Your task to perform on an android device: What's the weather going to be this weekend? Image 0: 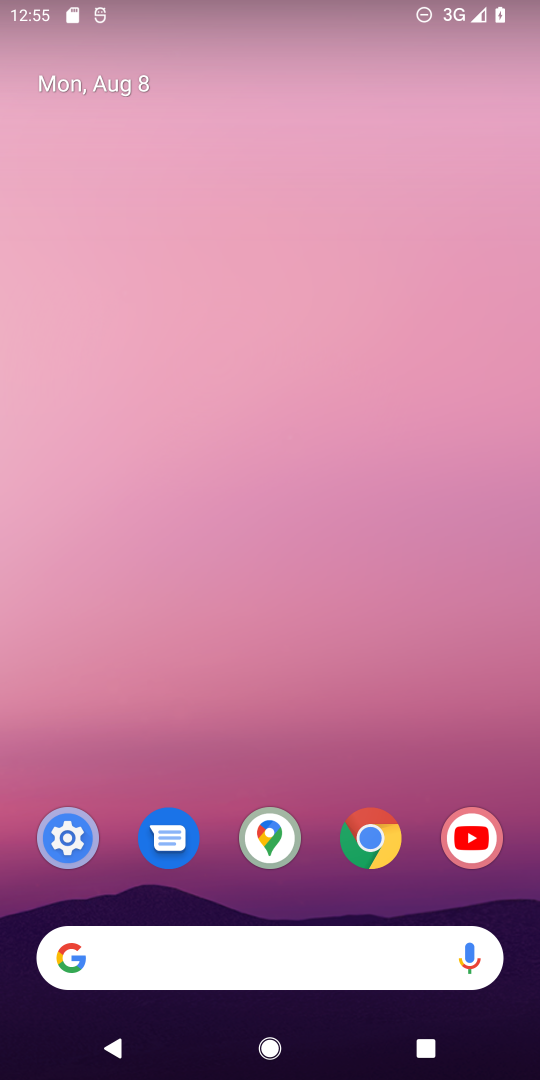
Step 0: press home button
Your task to perform on an android device: What's the weather going to be this weekend? Image 1: 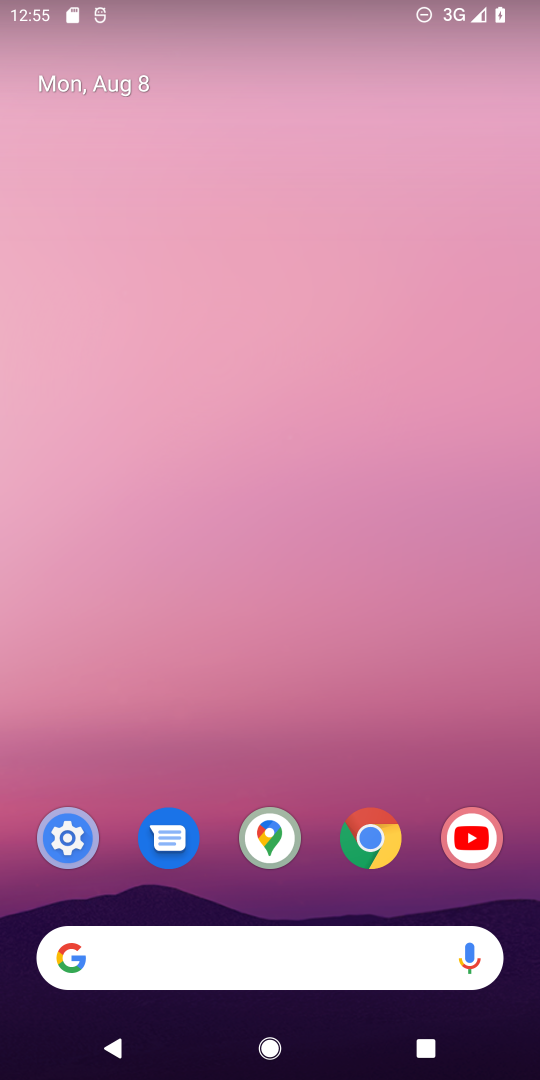
Step 1: click (68, 960)
Your task to perform on an android device: What's the weather going to be this weekend? Image 2: 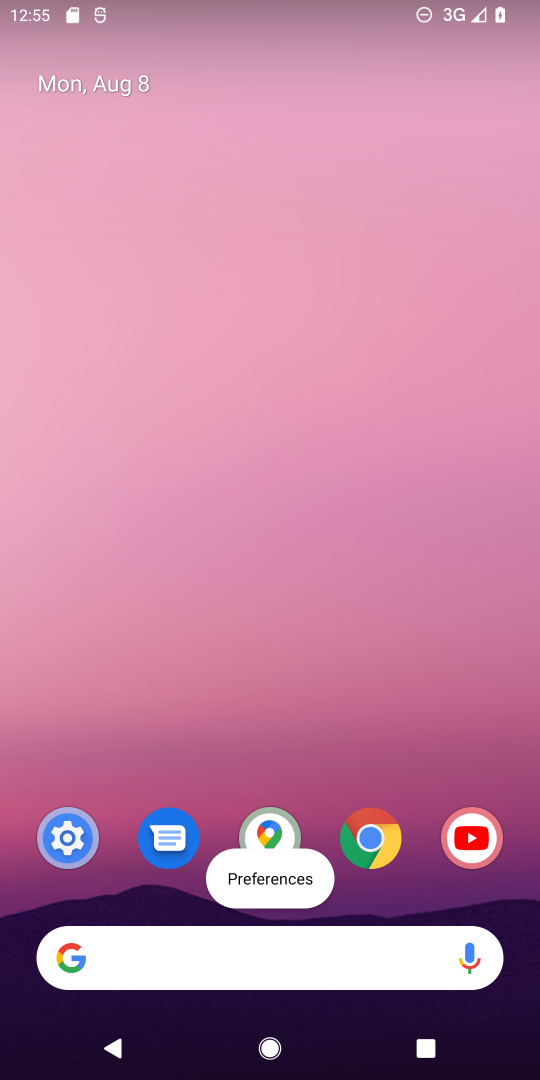
Step 2: click (71, 947)
Your task to perform on an android device: What's the weather going to be this weekend? Image 3: 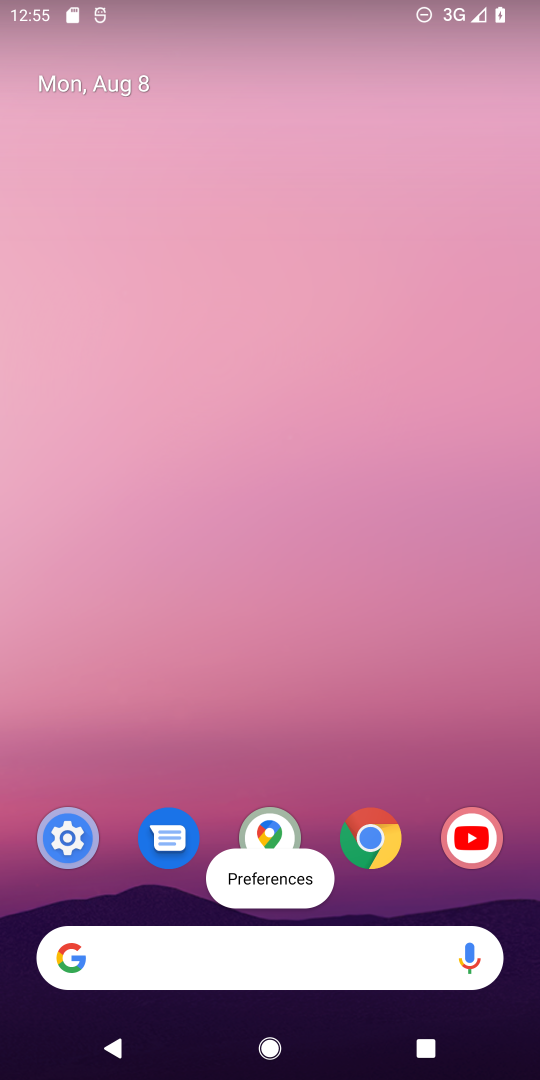
Step 3: click (69, 947)
Your task to perform on an android device: What's the weather going to be this weekend? Image 4: 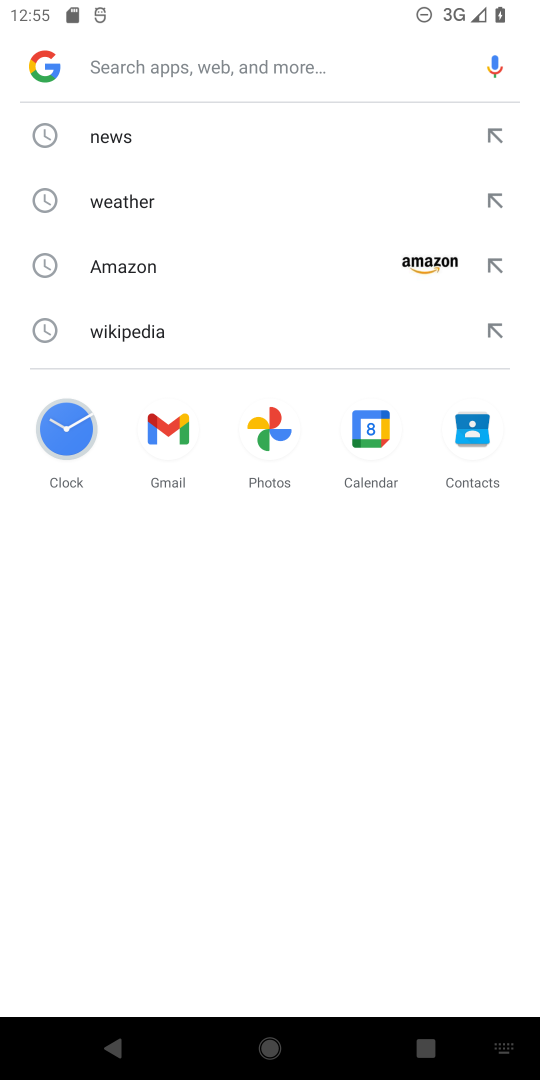
Step 4: type "What's the weather going to be this weekend?"
Your task to perform on an android device: What's the weather going to be this weekend? Image 5: 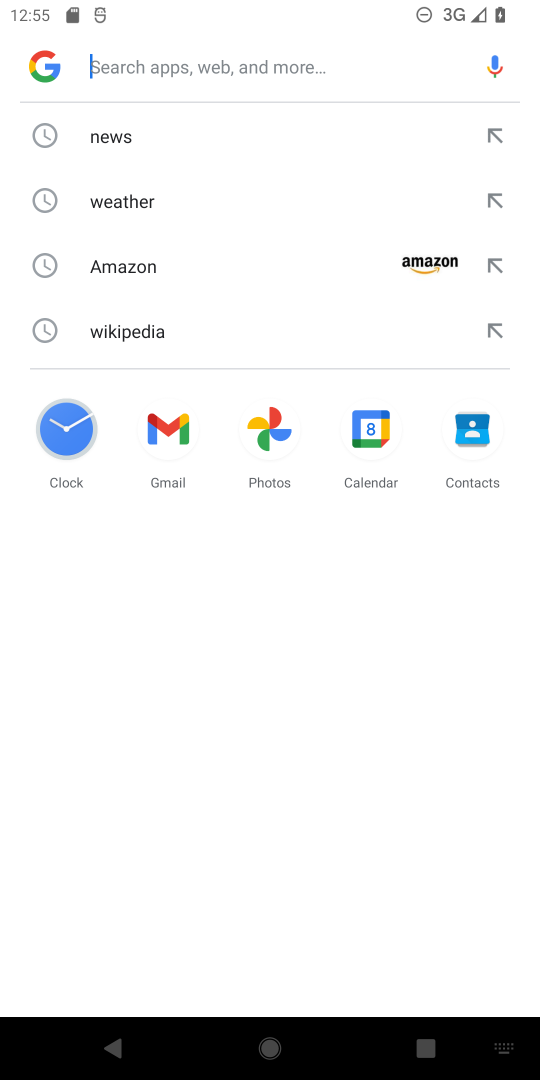
Step 5: click (149, 66)
Your task to perform on an android device: What's the weather going to be this weekend? Image 6: 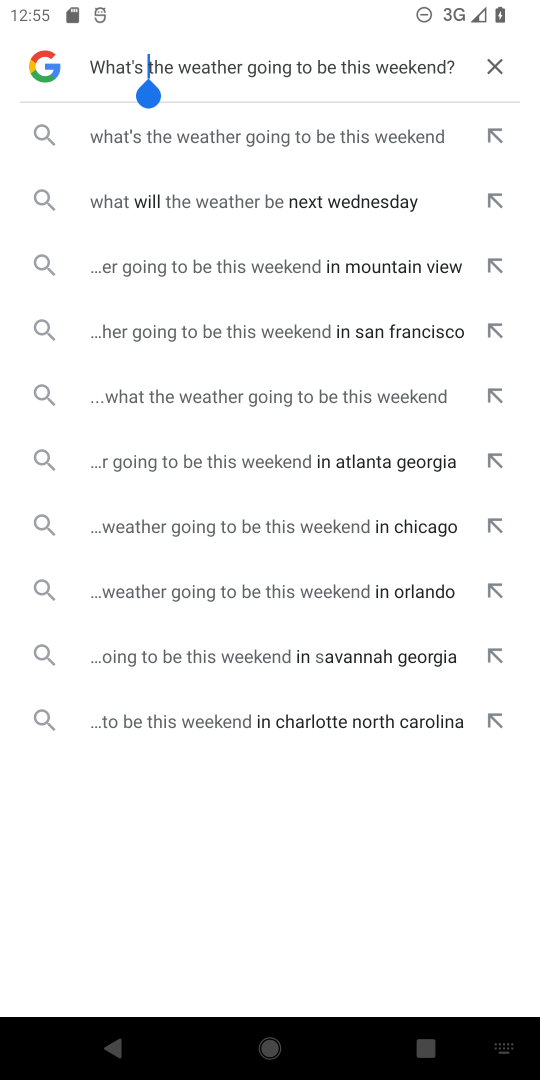
Step 6: press enter
Your task to perform on an android device: What's the weather going to be this weekend? Image 7: 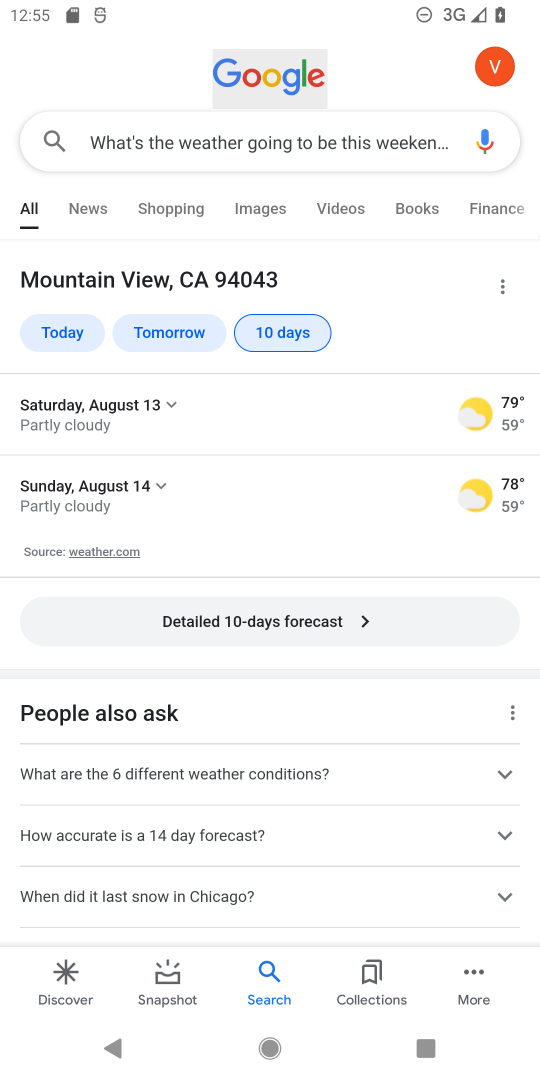
Step 7: task complete